Your task to perform on an android device: open app "Booking.com: Hotels and more" Image 0: 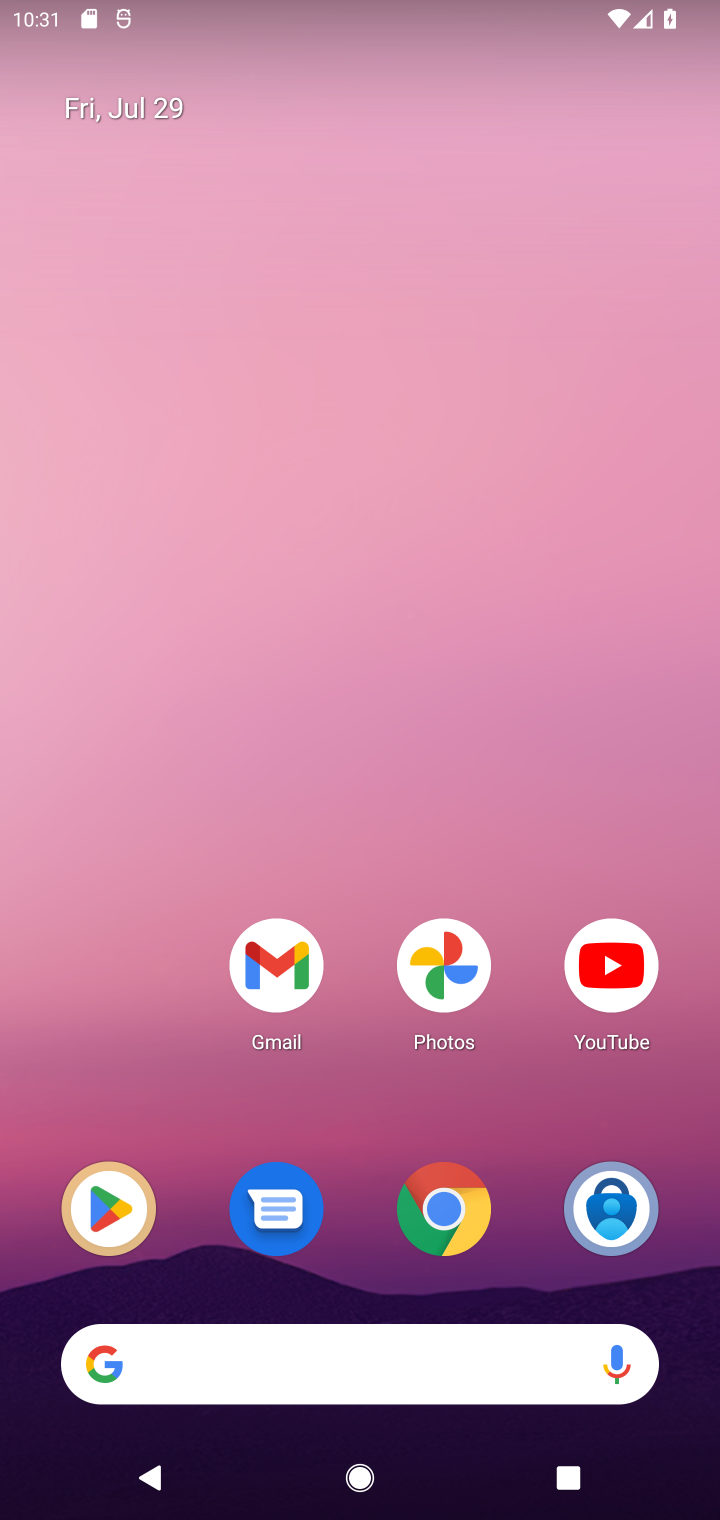
Step 0: drag from (541, 1088) to (439, 48)
Your task to perform on an android device: open app "Booking.com: Hotels and more" Image 1: 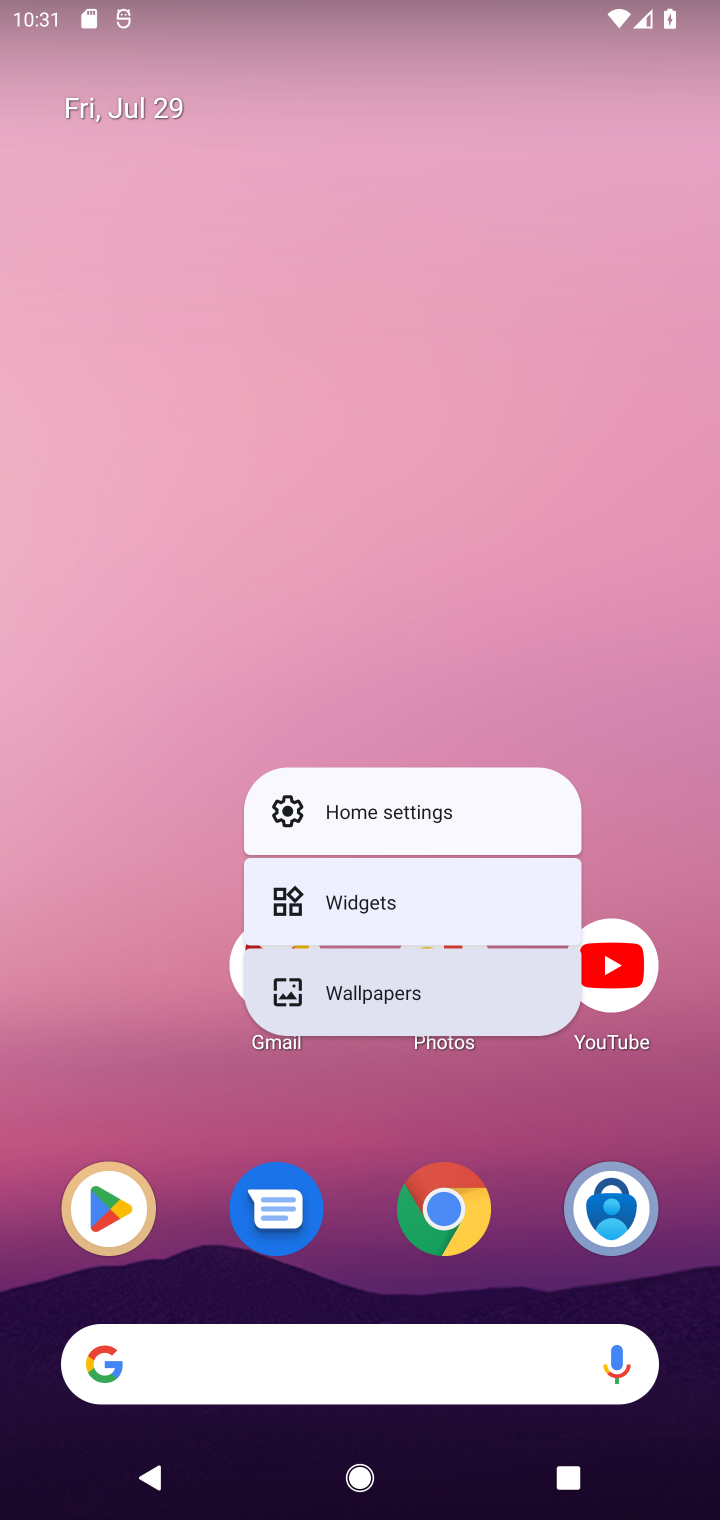
Step 1: click (373, 430)
Your task to perform on an android device: open app "Booking.com: Hotels and more" Image 2: 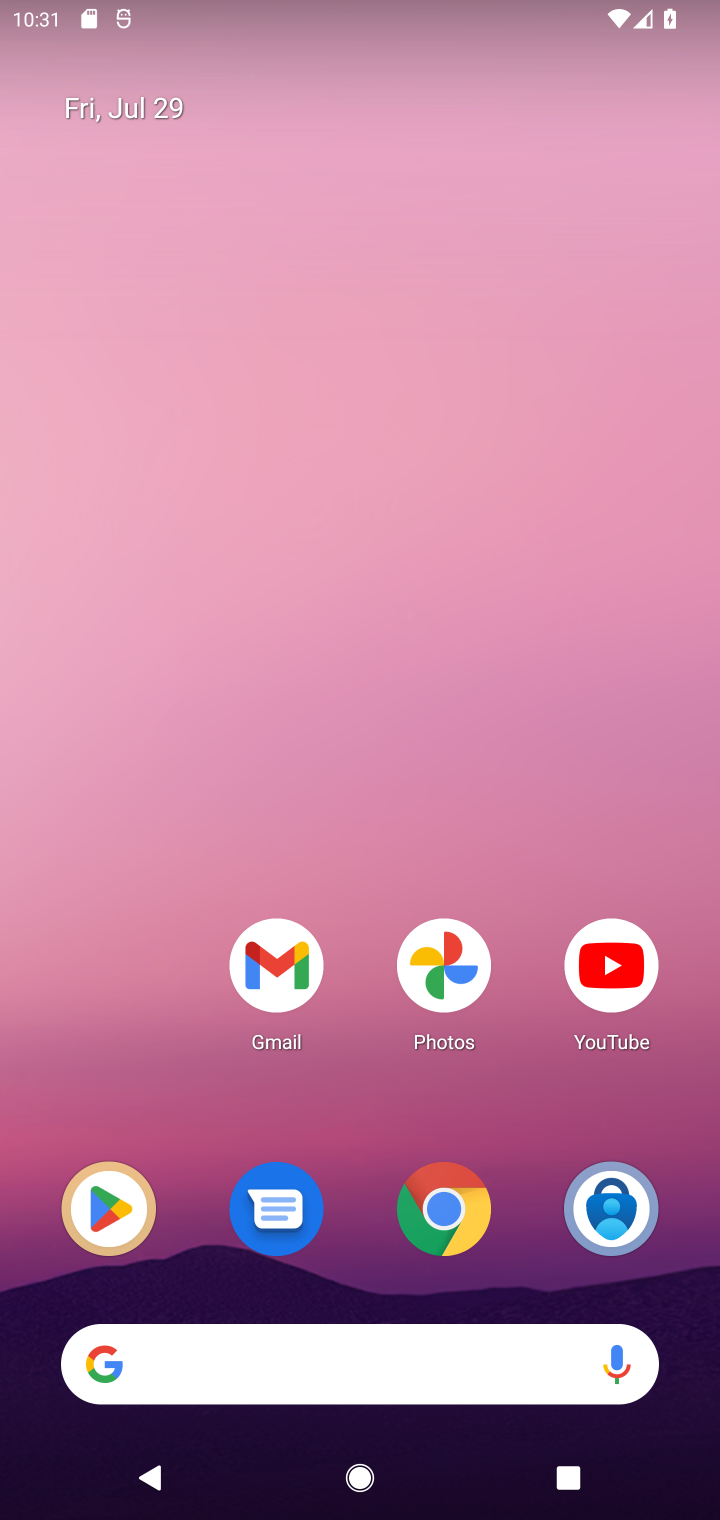
Step 2: drag from (529, 1066) to (552, 89)
Your task to perform on an android device: open app "Booking.com: Hotels and more" Image 3: 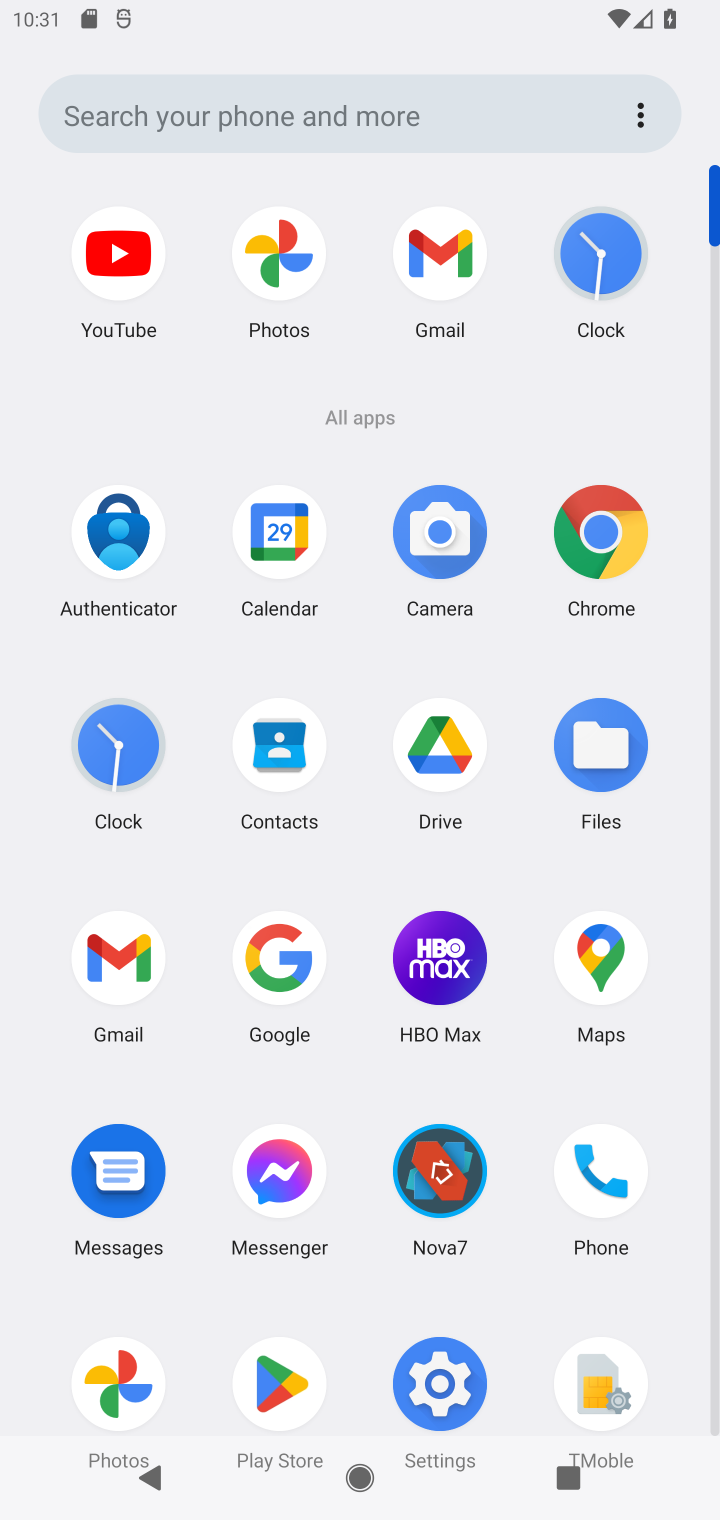
Step 3: click (287, 1375)
Your task to perform on an android device: open app "Booking.com: Hotels and more" Image 4: 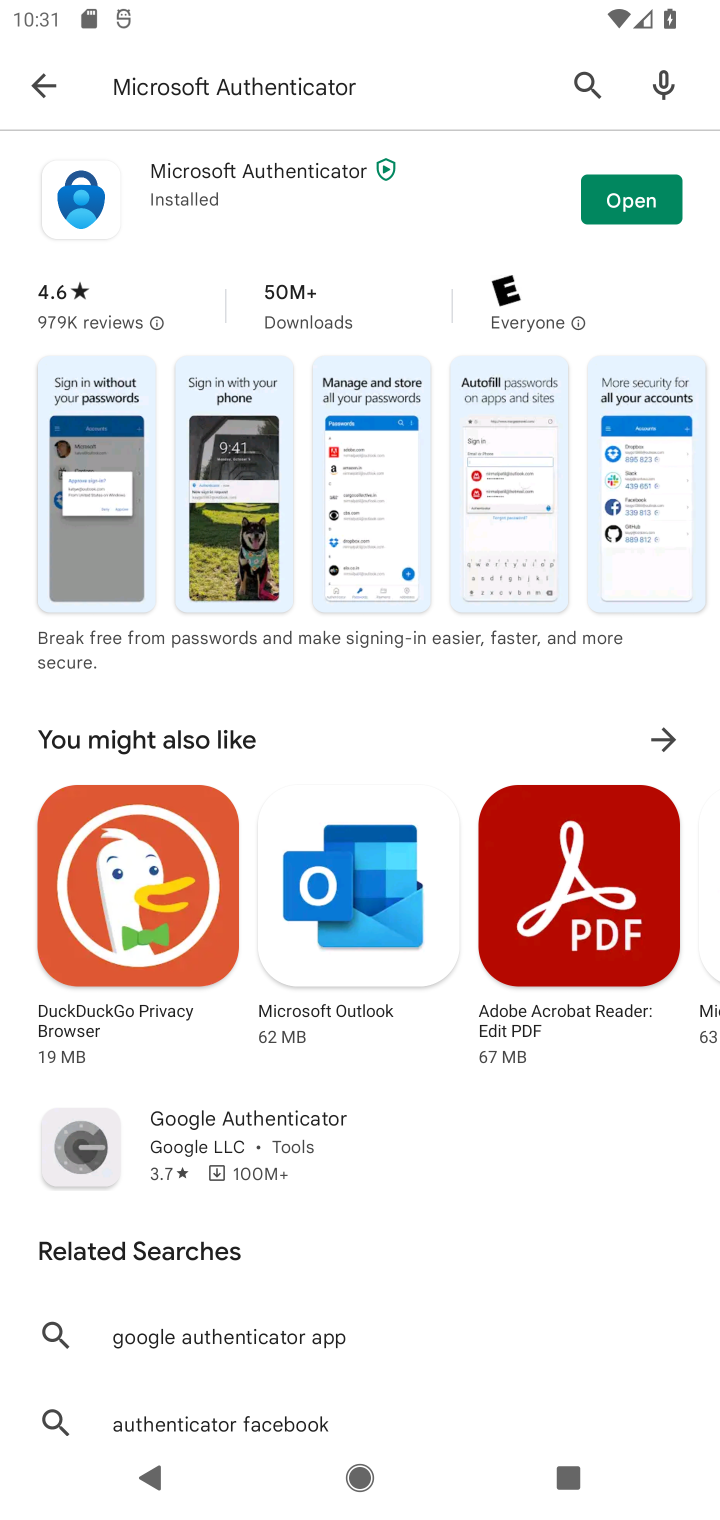
Step 4: click (300, 83)
Your task to perform on an android device: open app "Booking.com: Hotels and more" Image 5: 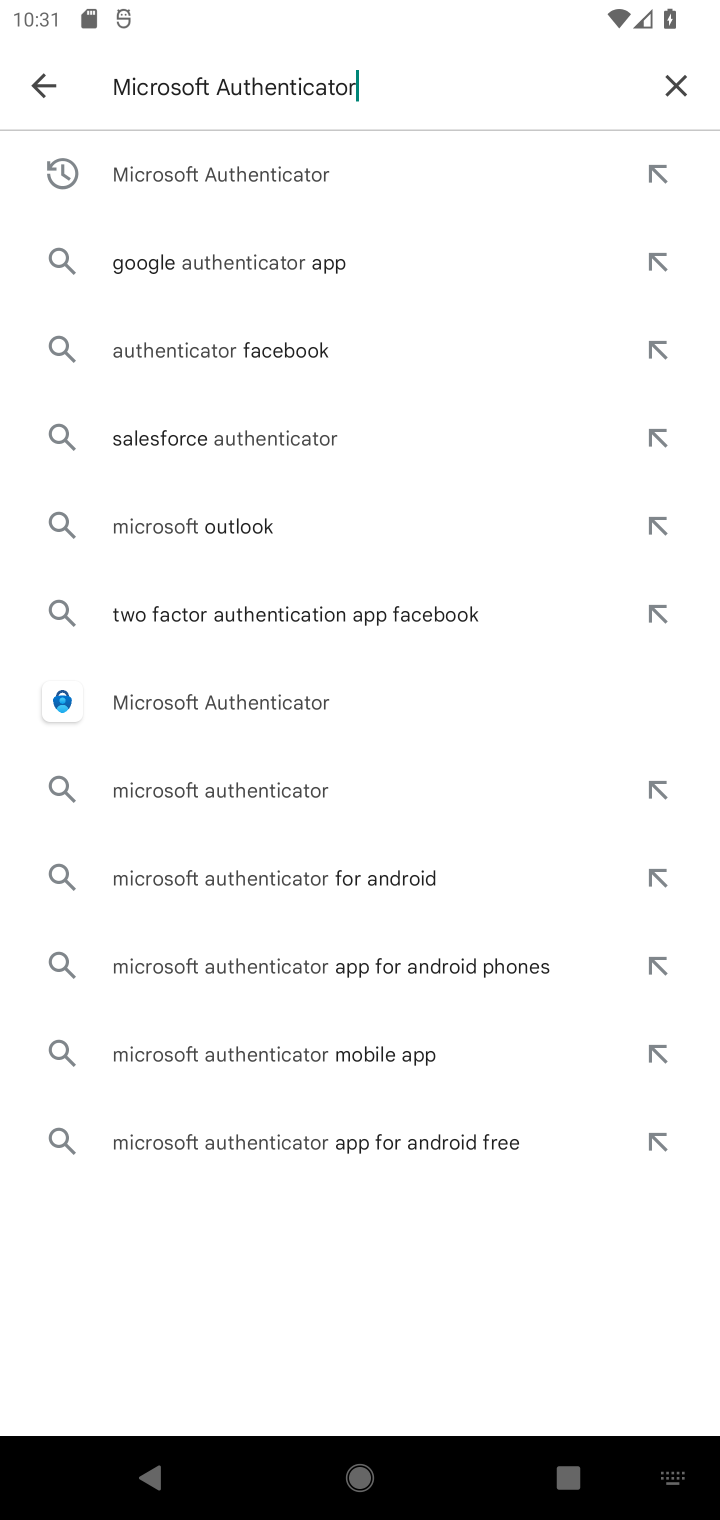
Step 5: click (685, 67)
Your task to perform on an android device: open app "Booking.com: Hotels and more" Image 6: 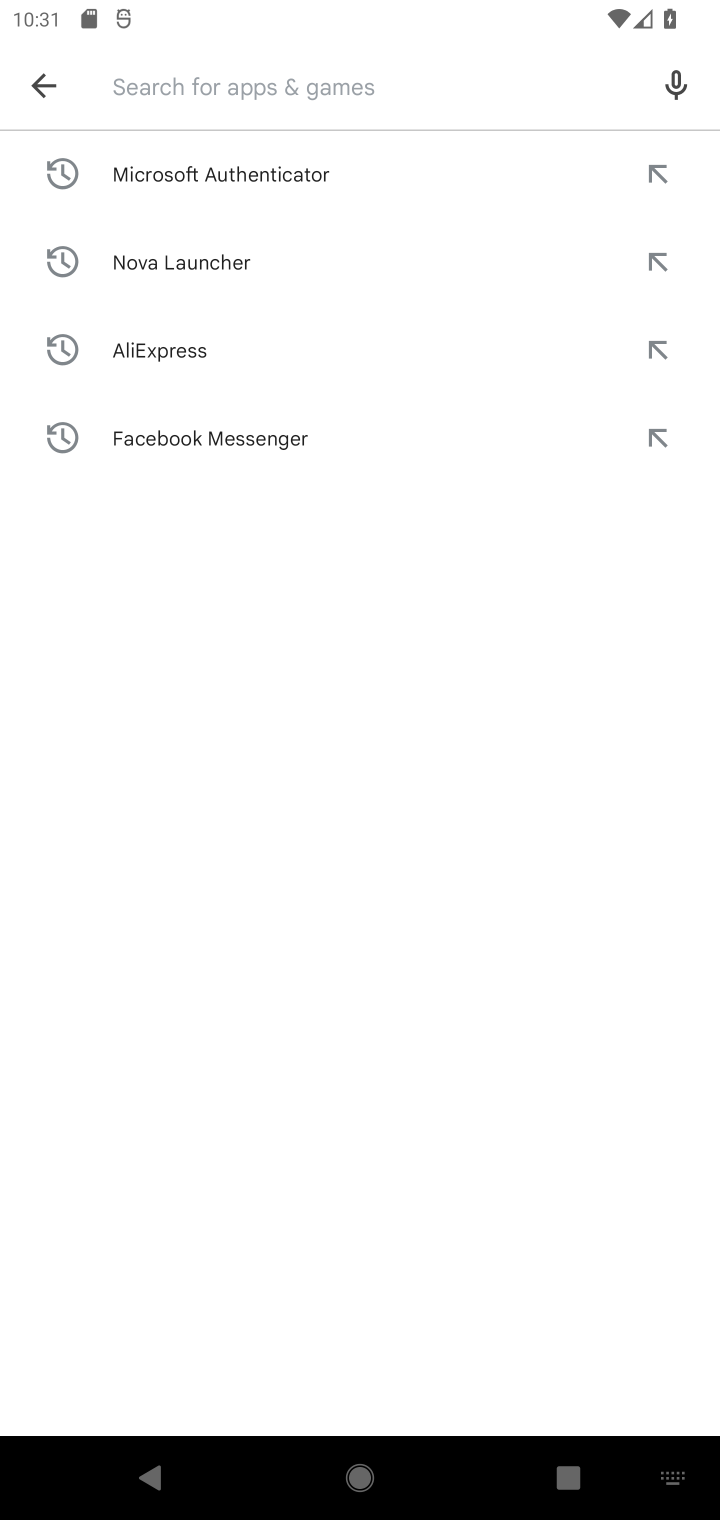
Step 6: type "Booking.com: Hotels and more"
Your task to perform on an android device: open app "Booking.com: Hotels and more" Image 7: 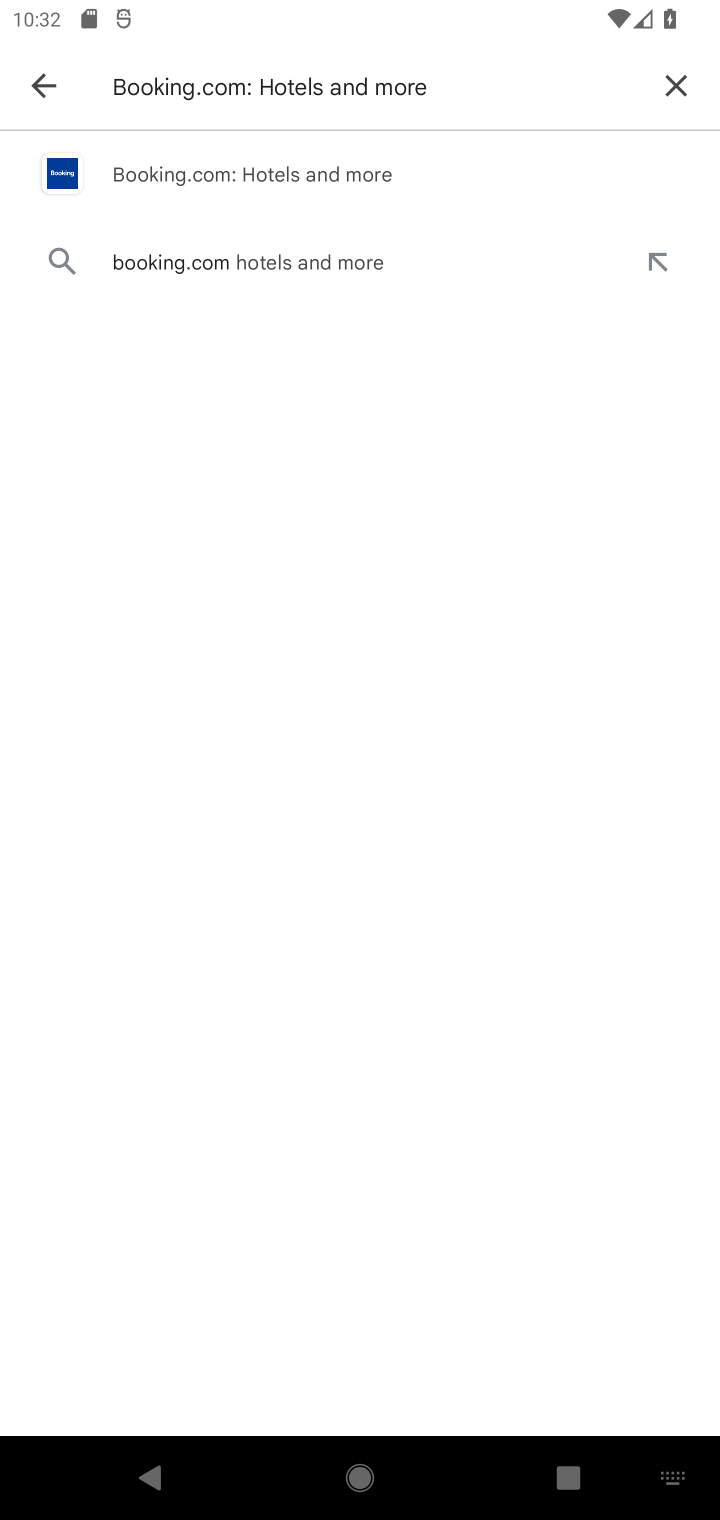
Step 7: press enter
Your task to perform on an android device: open app "Booking.com: Hotels and more" Image 8: 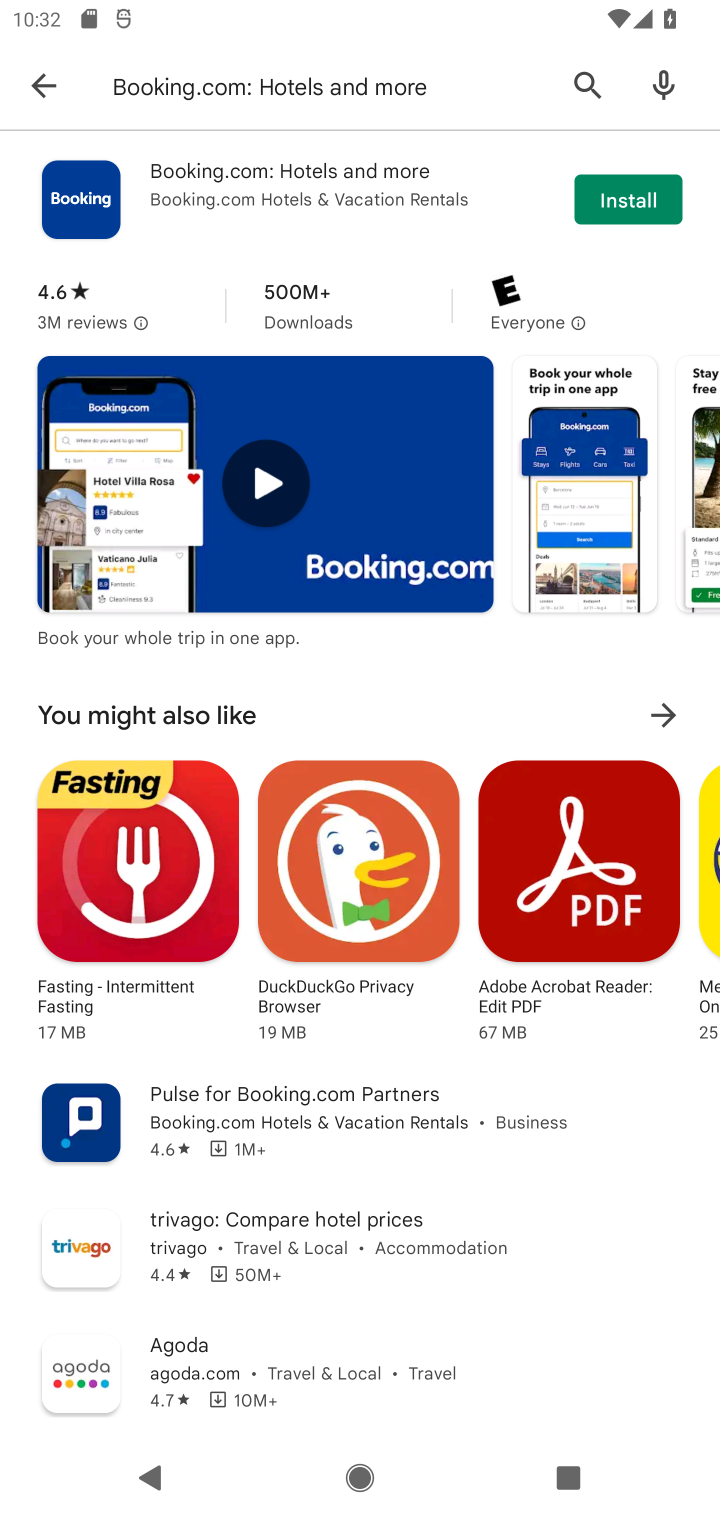
Step 8: task complete